Your task to perform on an android device: turn off notifications in google photos Image 0: 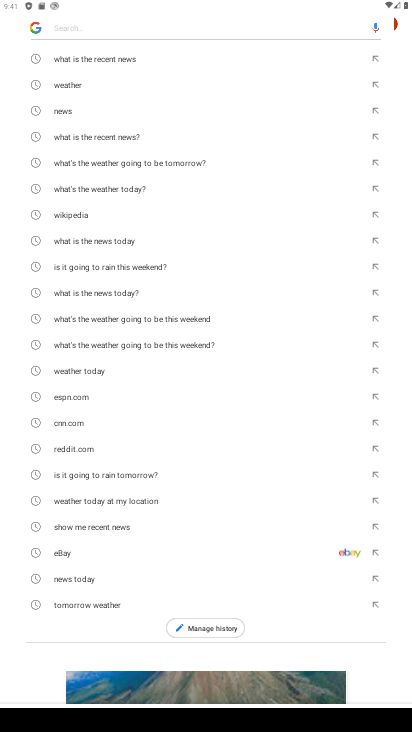
Step 0: press home button
Your task to perform on an android device: turn off notifications in google photos Image 1: 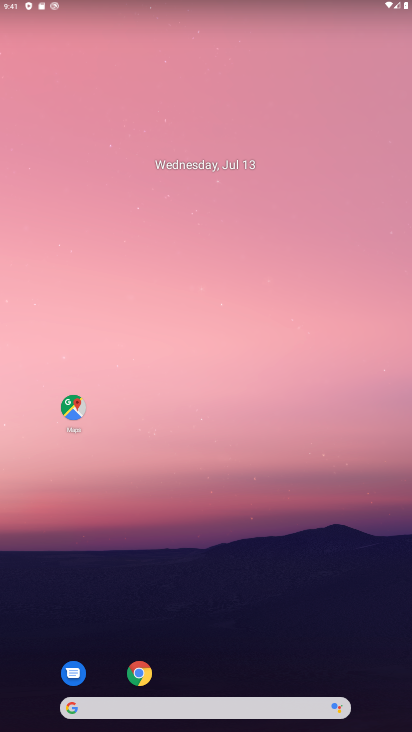
Step 1: drag from (188, 689) to (189, 402)
Your task to perform on an android device: turn off notifications in google photos Image 2: 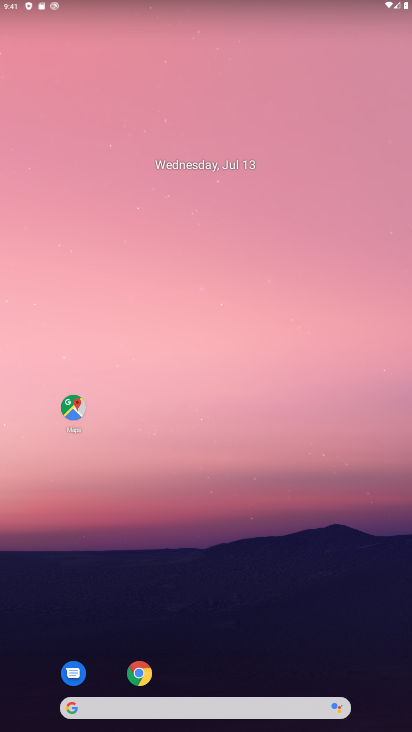
Step 2: drag from (162, 706) to (200, 301)
Your task to perform on an android device: turn off notifications in google photos Image 3: 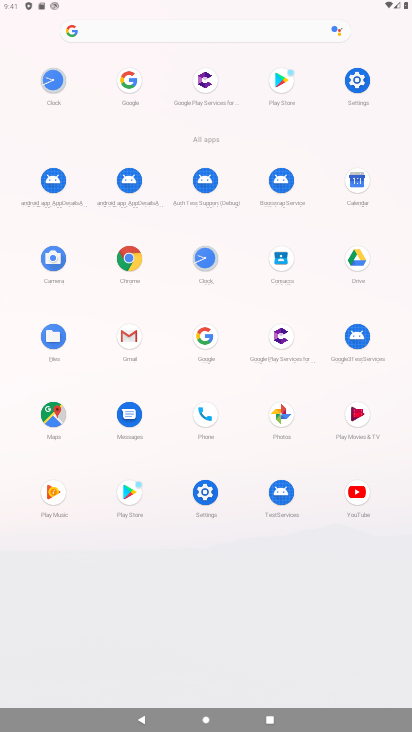
Step 3: click (275, 411)
Your task to perform on an android device: turn off notifications in google photos Image 4: 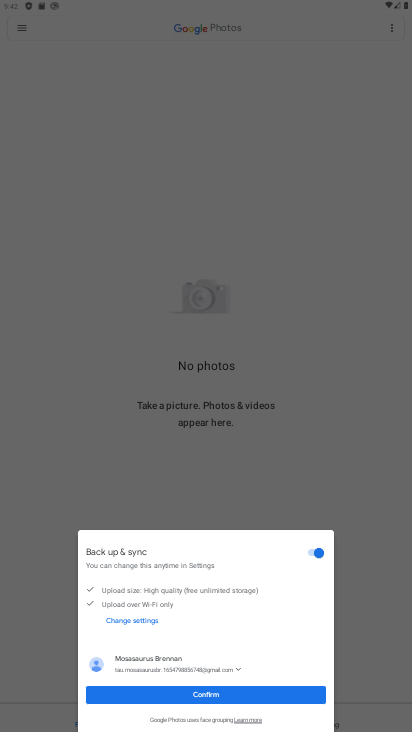
Step 4: click (197, 688)
Your task to perform on an android device: turn off notifications in google photos Image 5: 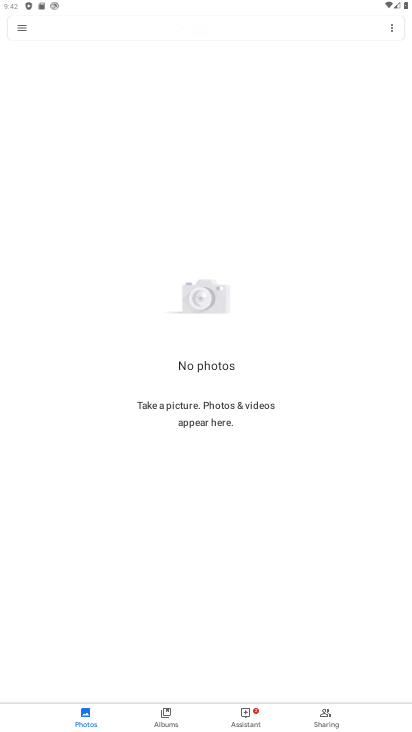
Step 5: click (23, 29)
Your task to perform on an android device: turn off notifications in google photos Image 6: 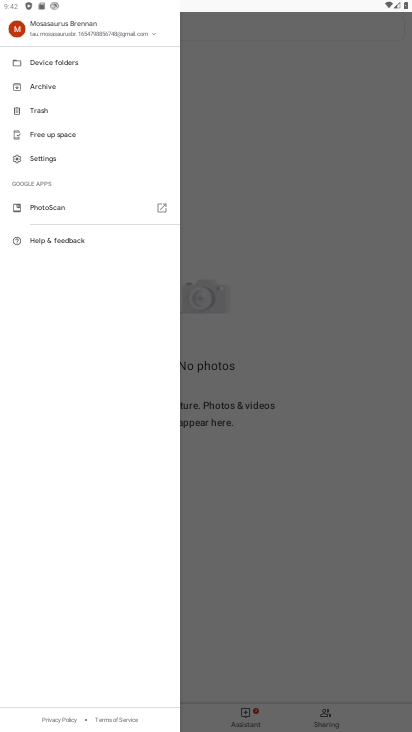
Step 6: click (48, 157)
Your task to perform on an android device: turn off notifications in google photos Image 7: 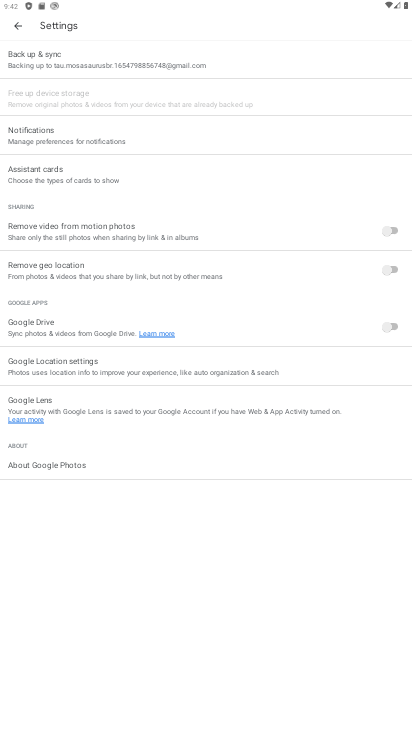
Step 7: click (63, 139)
Your task to perform on an android device: turn off notifications in google photos Image 8: 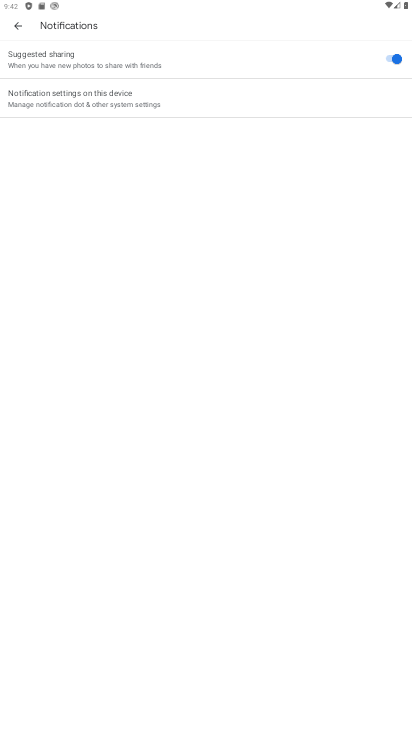
Step 8: click (386, 57)
Your task to perform on an android device: turn off notifications in google photos Image 9: 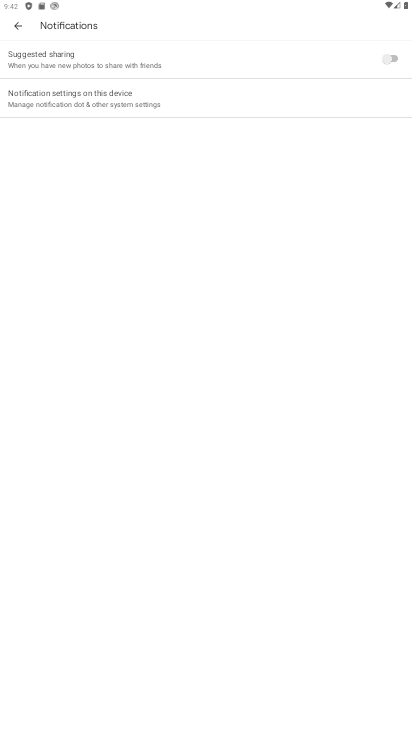
Step 9: task complete